Your task to perform on an android device: toggle location history Image 0: 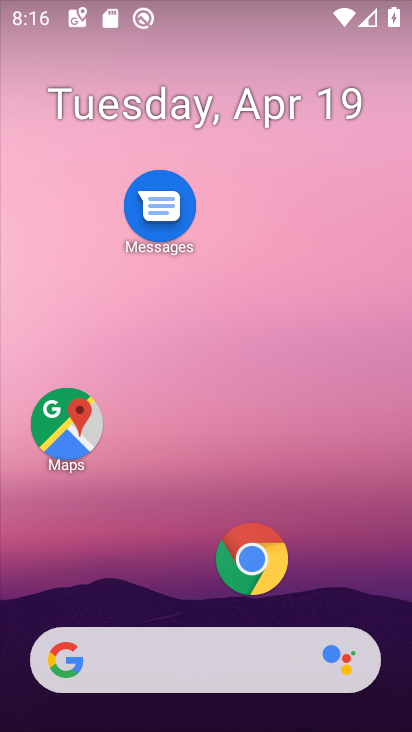
Step 0: drag from (140, 553) to (210, 65)
Your task to perform on an android device: toggle location history Image 1: 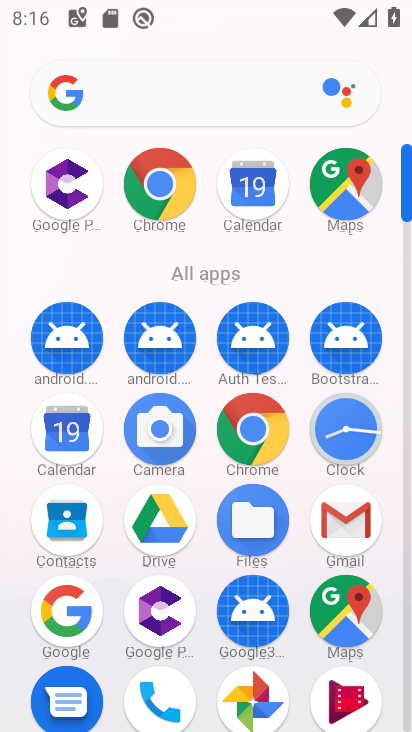
Step 1: drag from (195, 579) to (199, 255)
Your task to perform on an android device: toggle location history Image 2: 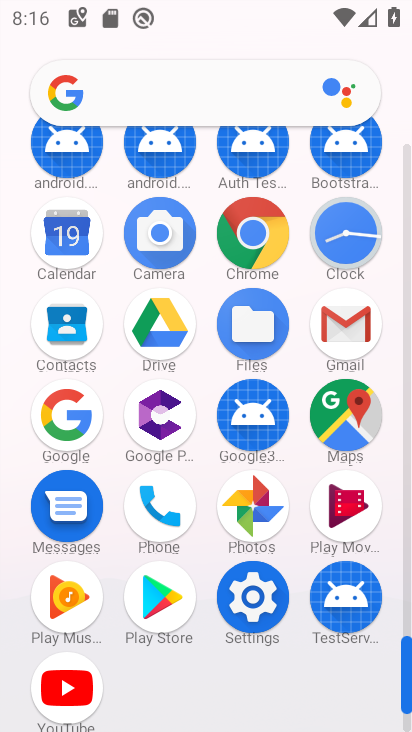
Step 2: click (255, 598)
Your task to perform on an android device: toggle location history Image 3: 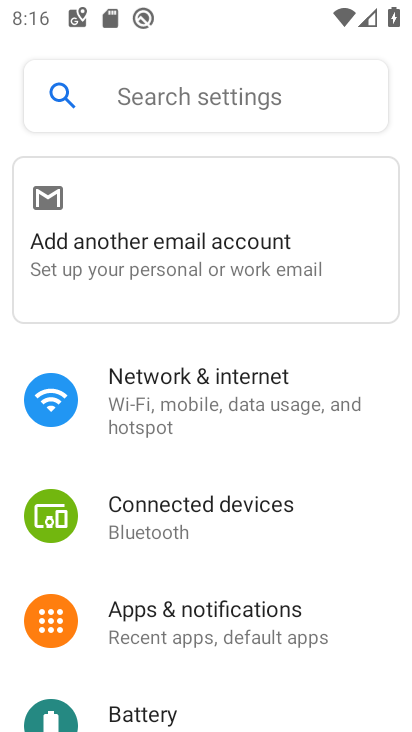
Step 3: drag from (255, 598) to (248, 138)
Your task to perform on an android device: toggle location history Image 4: 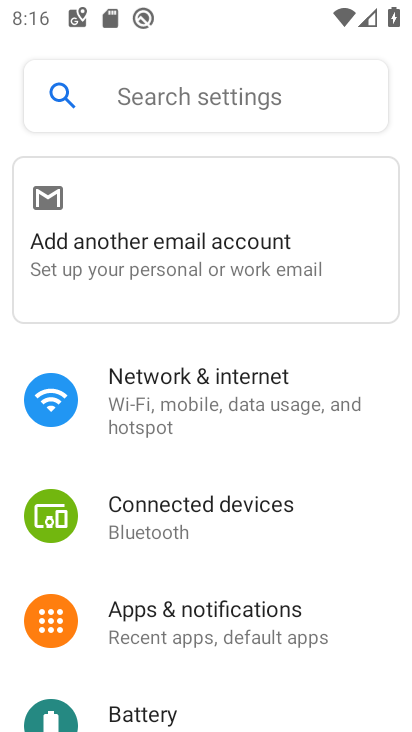
Step 4: drag from (209, 633) to (204, 9)
Your task to perform on an android device: toggle location history Image 5: 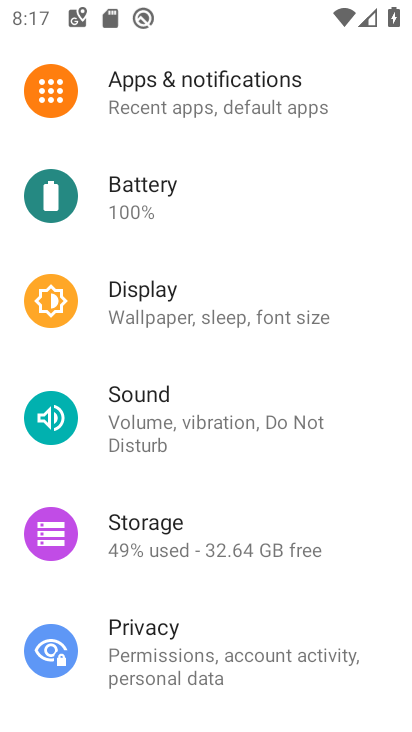
Step 5: drag from (181, 617) to (155, 262)
Your task to perform on an android device: toggle location history Image 6: 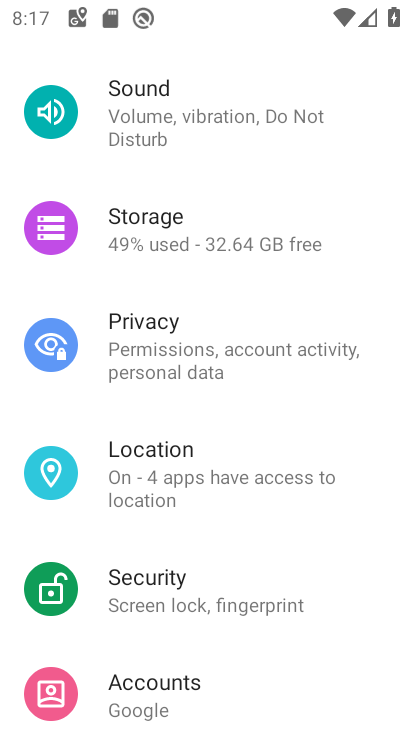
Step 6: click (185, 489)
Your task to perform on an android device: toggle location history Image 7: 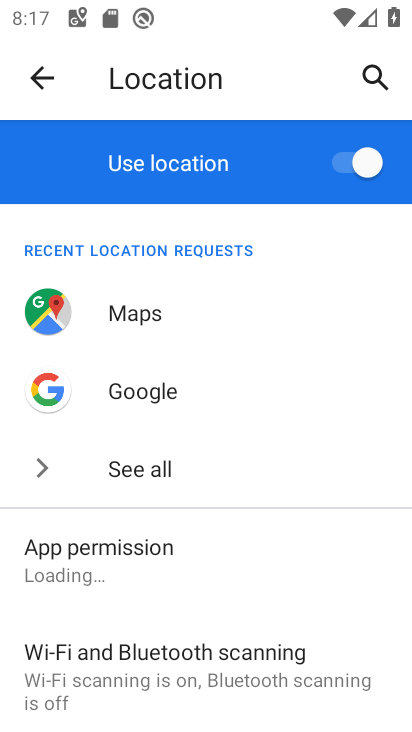
Step 7: drag from (138, 674) to (132, 203)
Your task to perform on an android device: toggle location history Image 8: 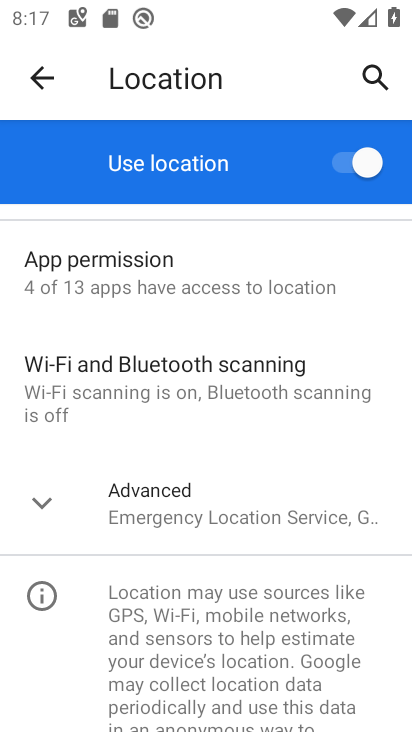
Step 8: click (211, 503)
Your task to perform on an android device: toggle location history Image 9: 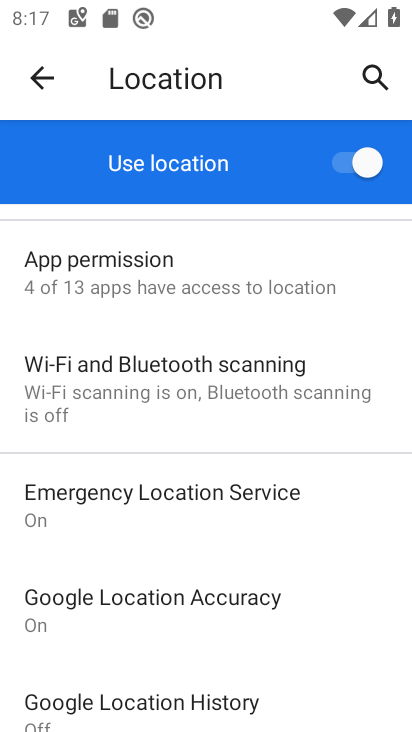
Step 9: click (137, 683)
Your task to perform on an android device: toggle location history Image 10: 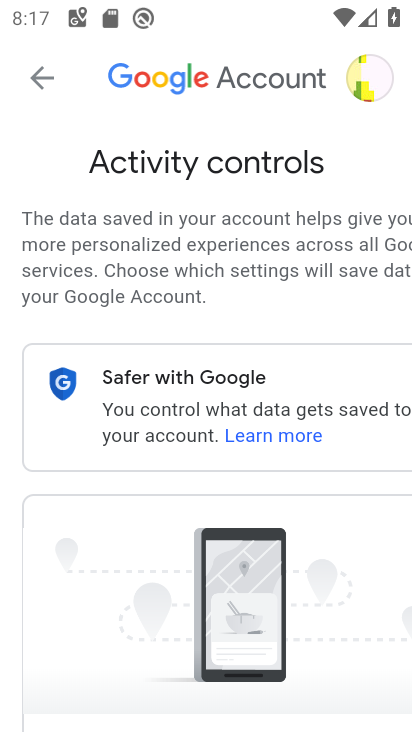
Step 10: drag from (220, 592) to (216, 11)
Your task to perform on an android device: toggle location history Image 11: 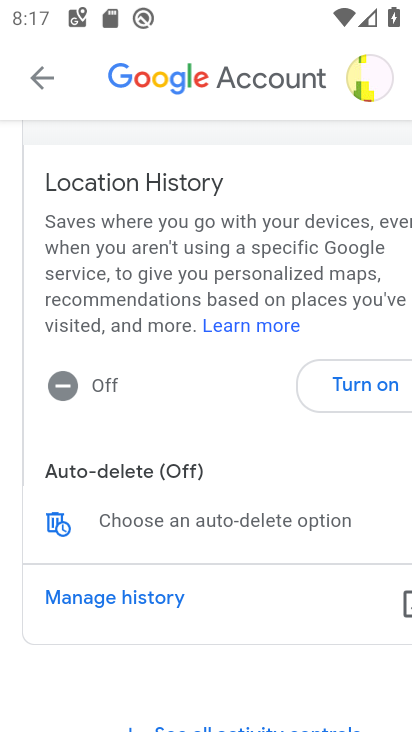
Step 11: click (329, 399)
Your task to perform on an android device: toggle location history Image 12: 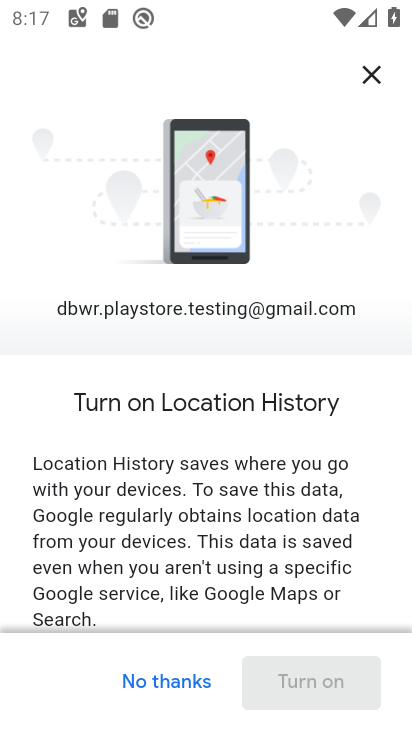
Step 12: drag from (298, 600) to (302, 96)
Your task to perform on an android device: toggle location history Image 13: 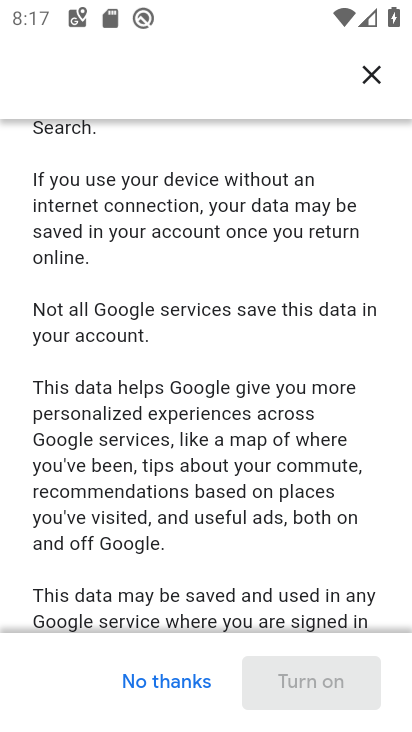
Step 13: drag from (286, 593) to (292, 166)
Your task to perform on an android device: toggle location history Image 14: 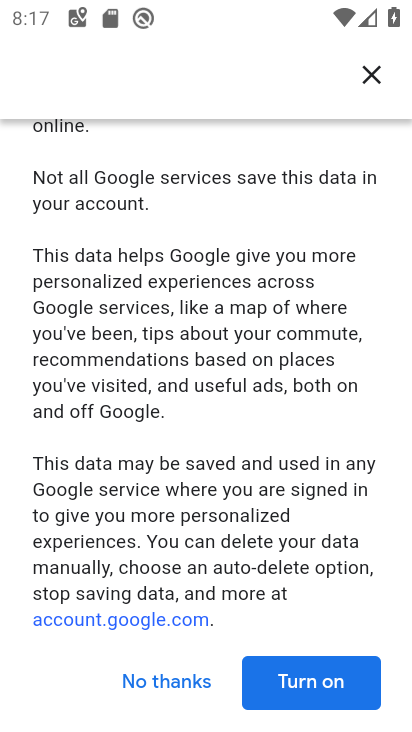
Step 14: click (297, 664)
Your task to perform on an android device: toggle location history Image 15: 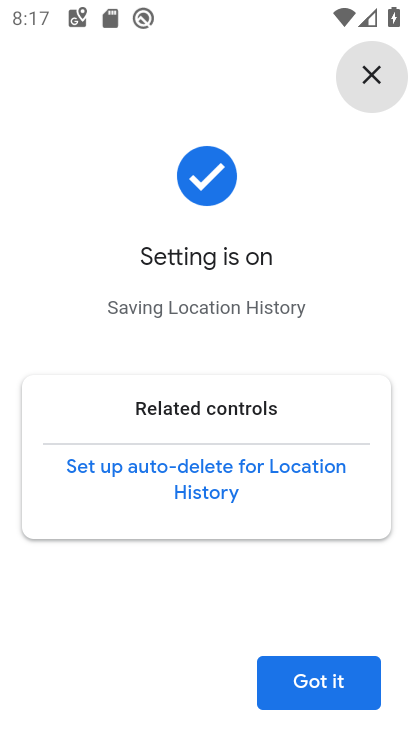
Step 15: click (296, 688)
Your task to perform on an android device: toggle location history Image 16: 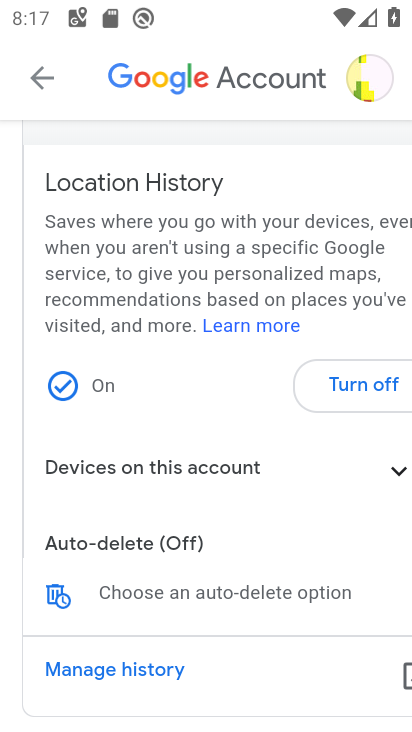
Step 16: task complete